Your task to perform on an android device: search for starred emails in the gmail app Image 0: 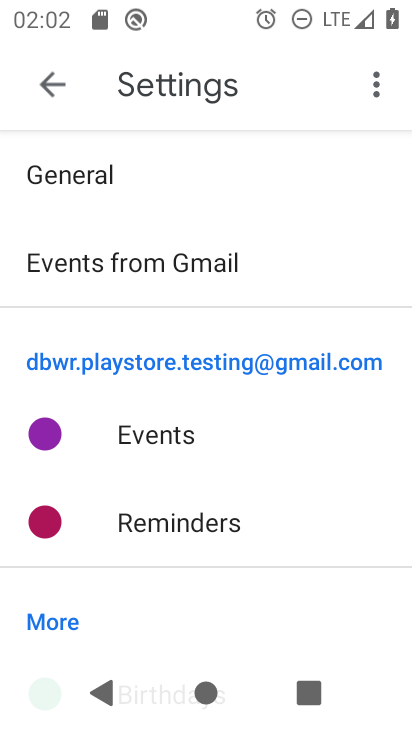
Step 0: press home button
Your task to perform on an android device: search for starred emails in the gmail app Image 1: 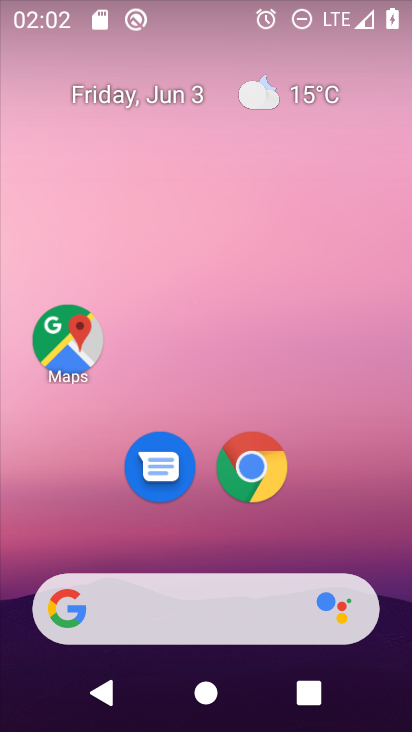
Step 1: drag from (396, 583) to (349, 71)
Your task to perform on an android device: search for starred emails in the gmail app Image 2: 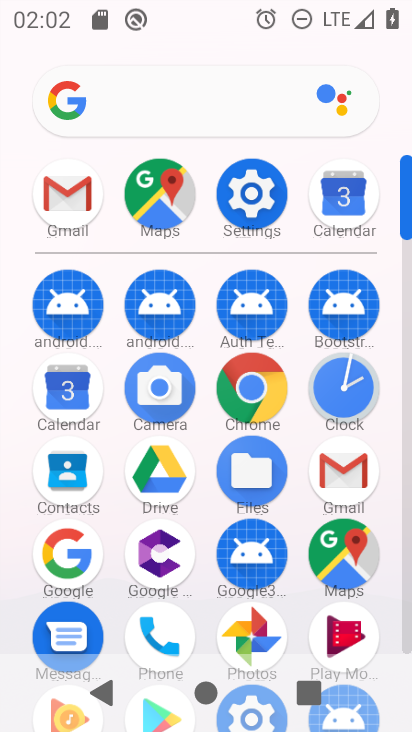
Step 2: click (406, 595)
Your task to perform on an android device: search for starred emails in the gmail app Image 3: 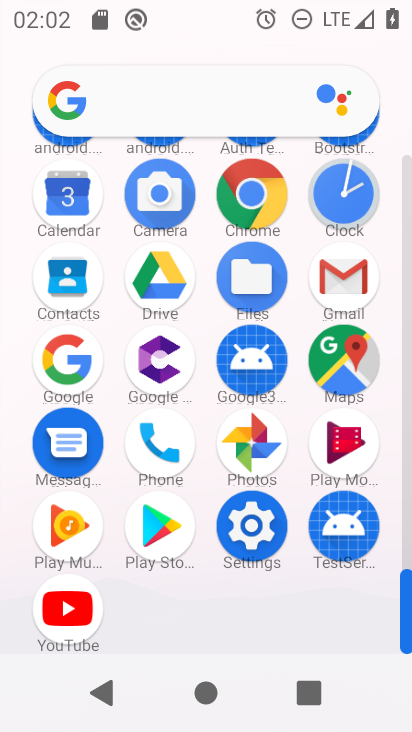
Step 3: click (343, 283)
Your task to perform on an android device: search for starred emails in the gmail app Image 4: 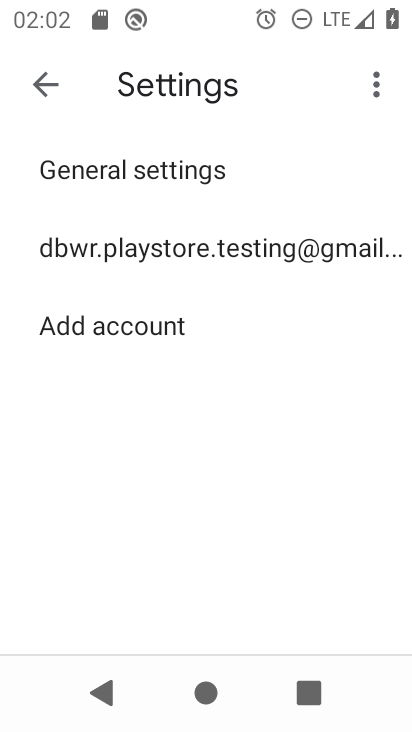
Step 4: press back button
Your task to perform on an android device: search for starred emails in the gmail app Image 5: 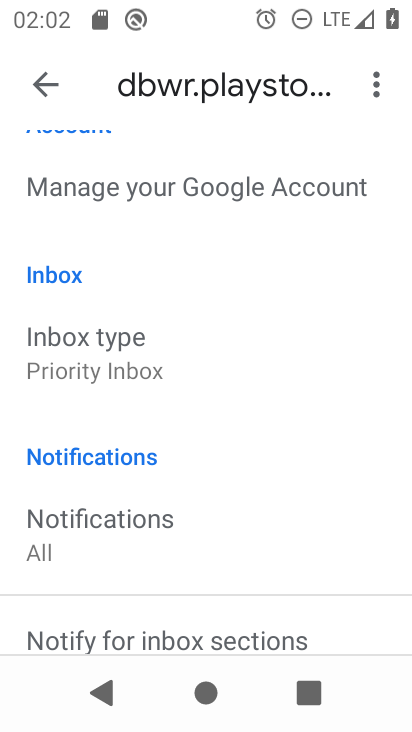
Step 5: press back button
Your task to perform on an android device: search for starred emails in the gmail app Image 6: 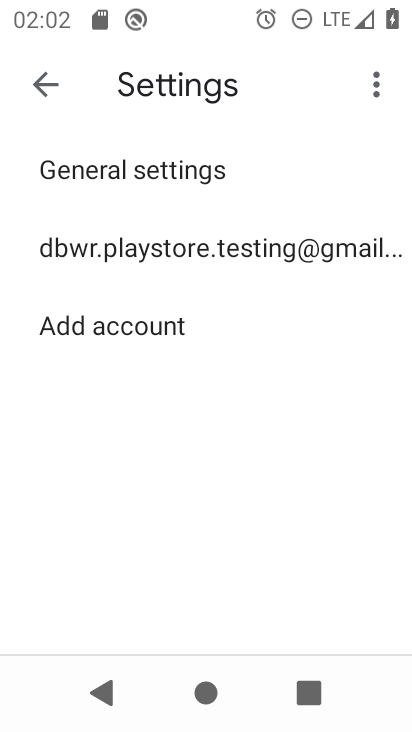
Step 6: press back button
Your task to perform on an android device: search for starred emails in the gmail app Image 7: 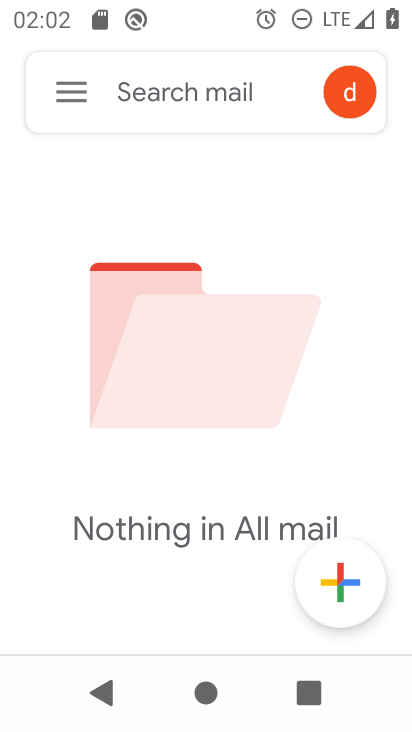
Step 7: click (70, 91)
Your task to perform on an android device: search for starred emails in the gmail app Image 8: 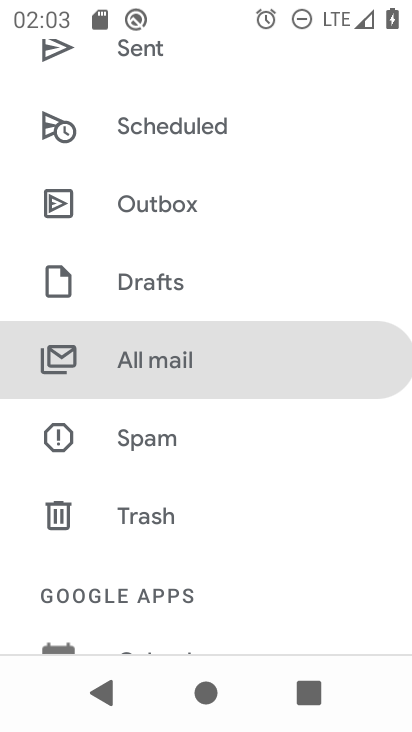
Step 8: click (193, 369)
Your task to perform on an android device: search for starred emails in the gmail app Image 9: 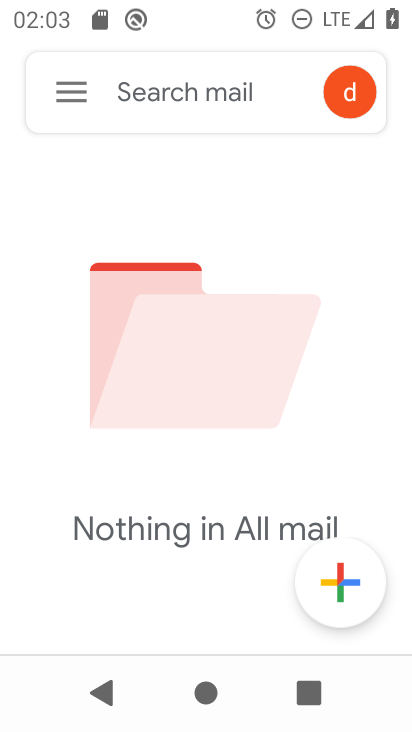
Step 9: click (63, 87)
Your task to perform on an android device: search for starred emails in the gmail app Image 10: 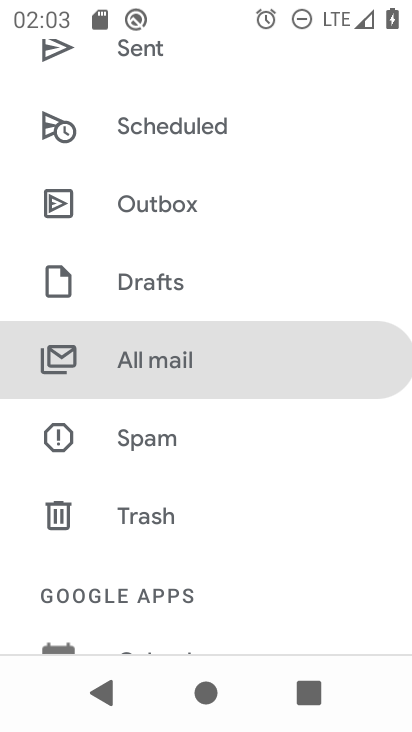
Step 10: drag from (314, 164) to (287, 371)
Your task to perform on an android device: search for starred emails in the gmail app Image 11: 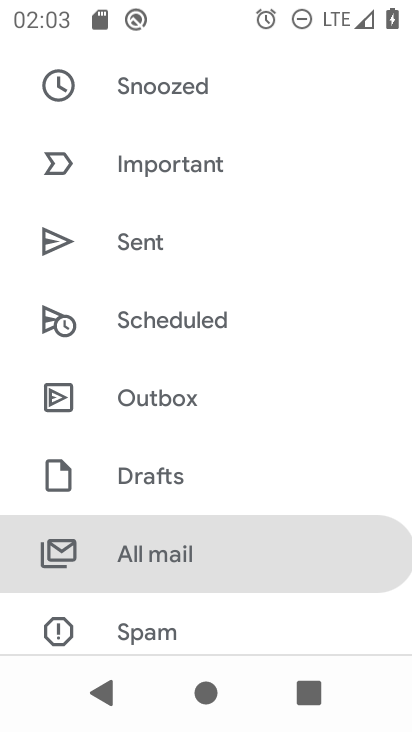
Step 11: drag from (306, 174) to (296, 410)
Your task to perform on an android device: search for starred emails in the gmail app Image 12: 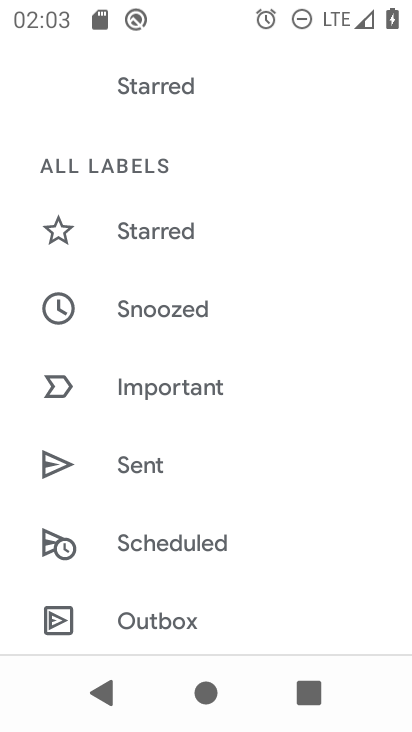
Step 12: click (159, 232)
Your task to perform on an android device: search for starred emails in the gmail app Image 13: 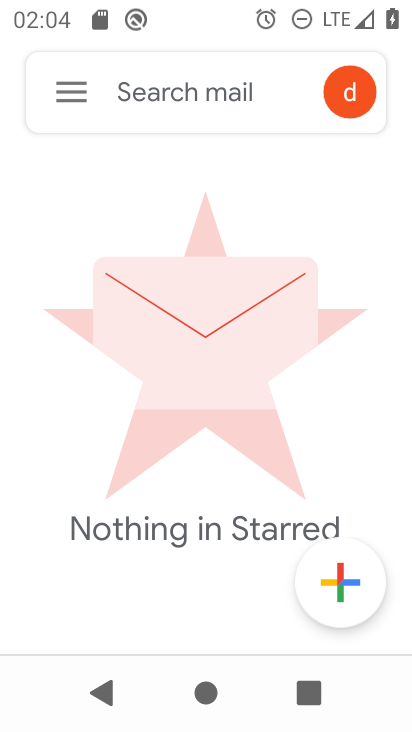
Step 13: task complete